Your task to perform on an android device: Go to CNN.com Image 0: 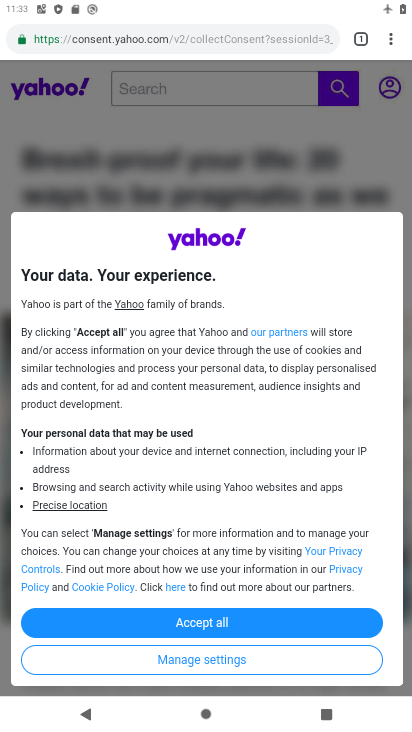
Step 0: click (161, 35)
Your task to perform on an android device: Go to CNN.com Image 1: 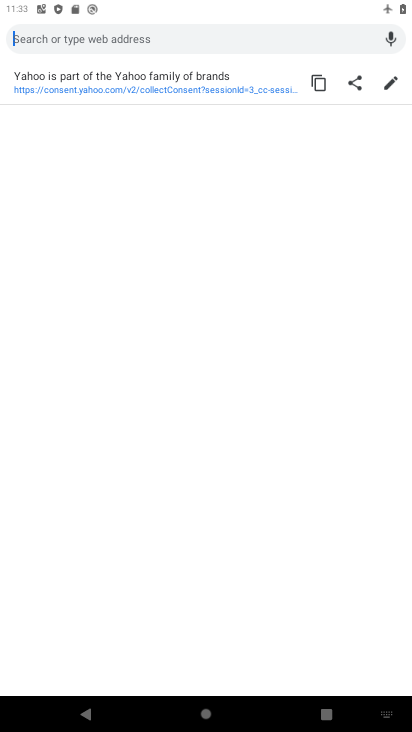
Step 1: type "cnn.com"
Your task to perform on an android device: Go to CNN.com Image 2: 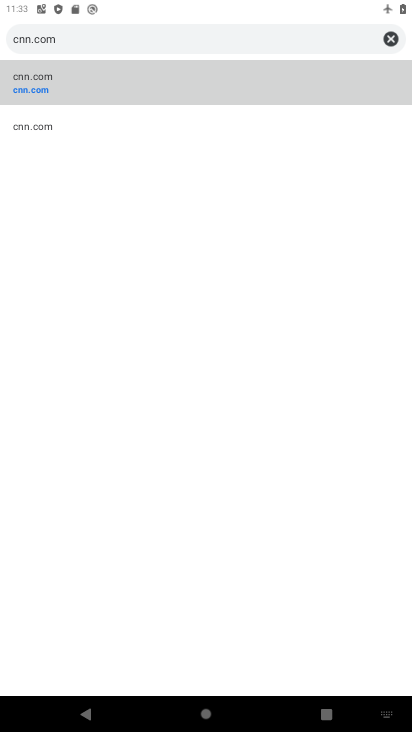
Step 2: click (30, 83)
Your task to perform on an android device: Go to CNN.com Image 3: 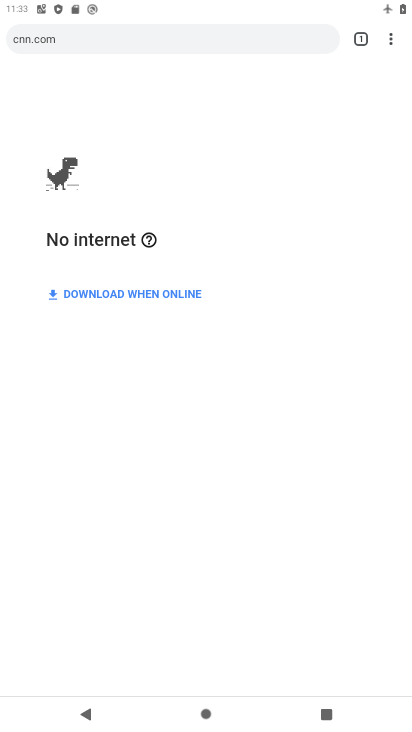
Step 3: task complete